Your task to perform on an android device: set default search engine in the chrome app Image 0: 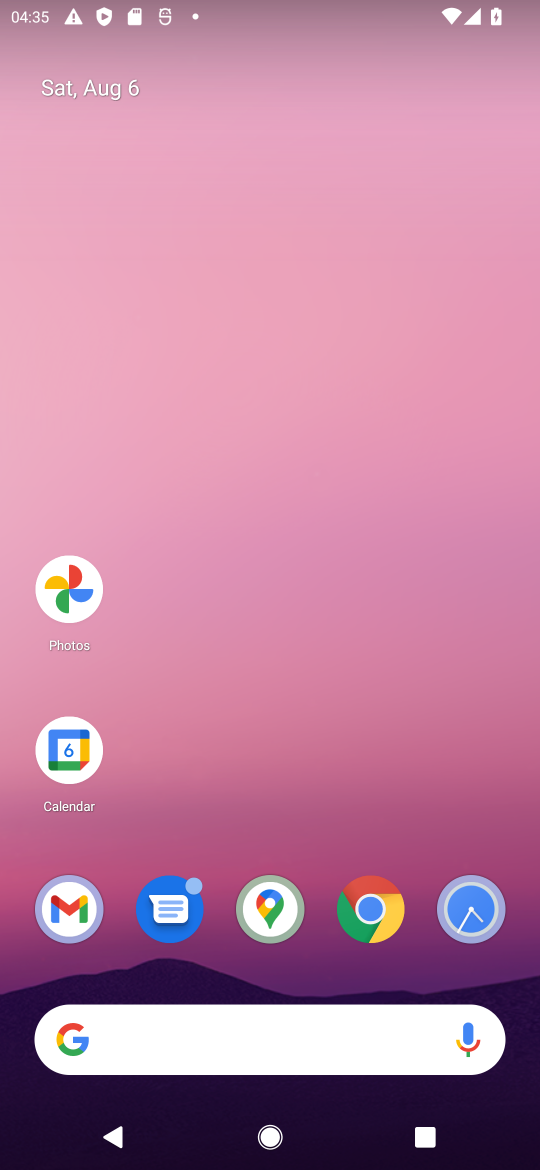
Step 0: click (368, 914)
Your task to perform on an android device: set default search engine in the chrome app Image 1: 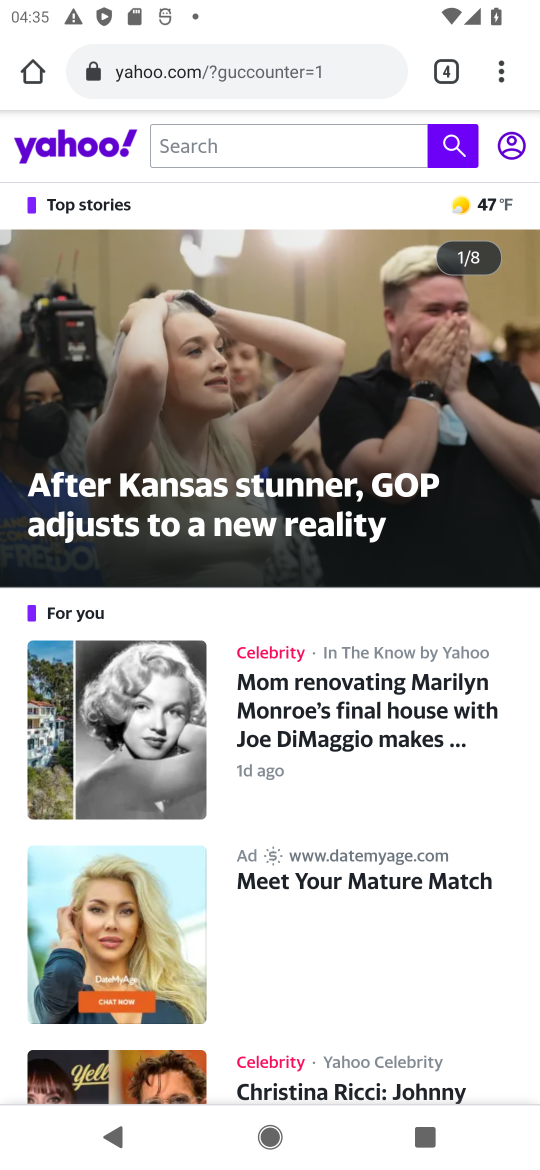
Step 1: click (501, 75)
Your task to perform on an android device: set default search engine in the chrome app Image 2: 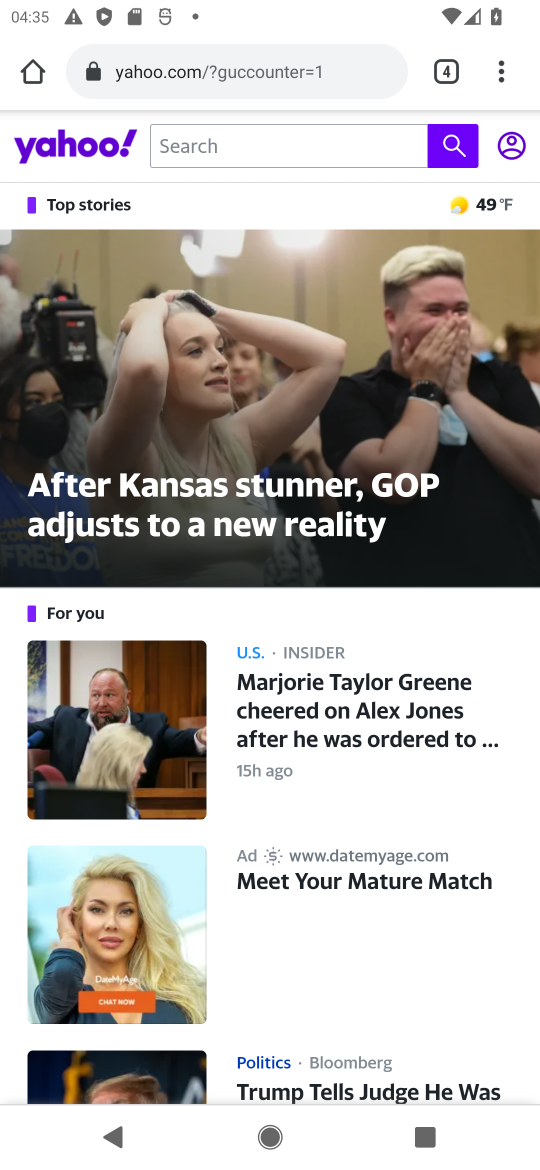
Step 2: click (500, 70)
Your task to perform on an android device: set default search engine in the chrome app Image 3: 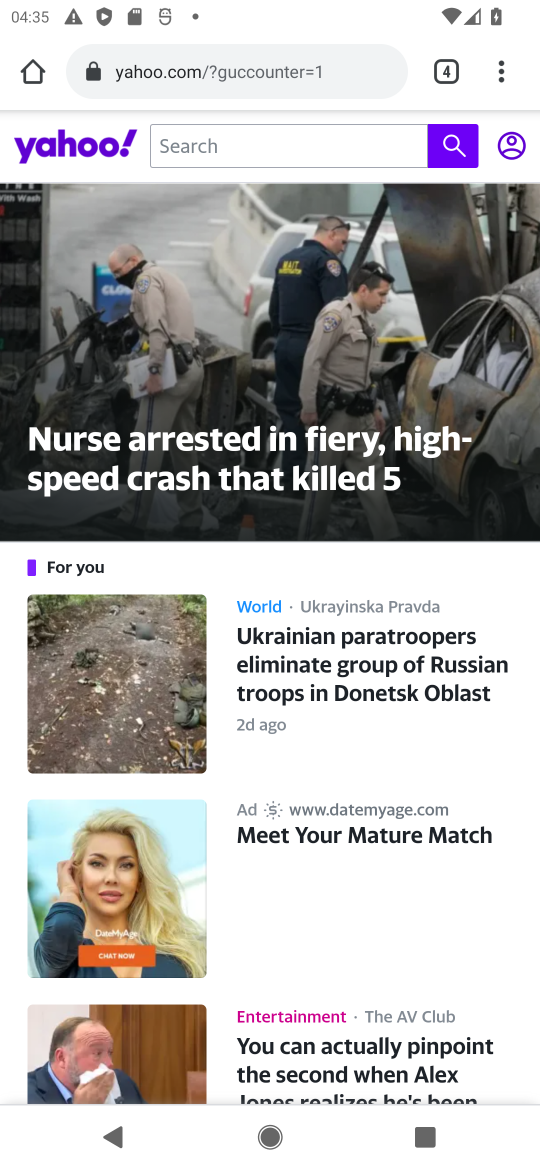
Step 3: click (508, 76)
Your task to perform on an android device: set default search engine in the chrome app Image 4: 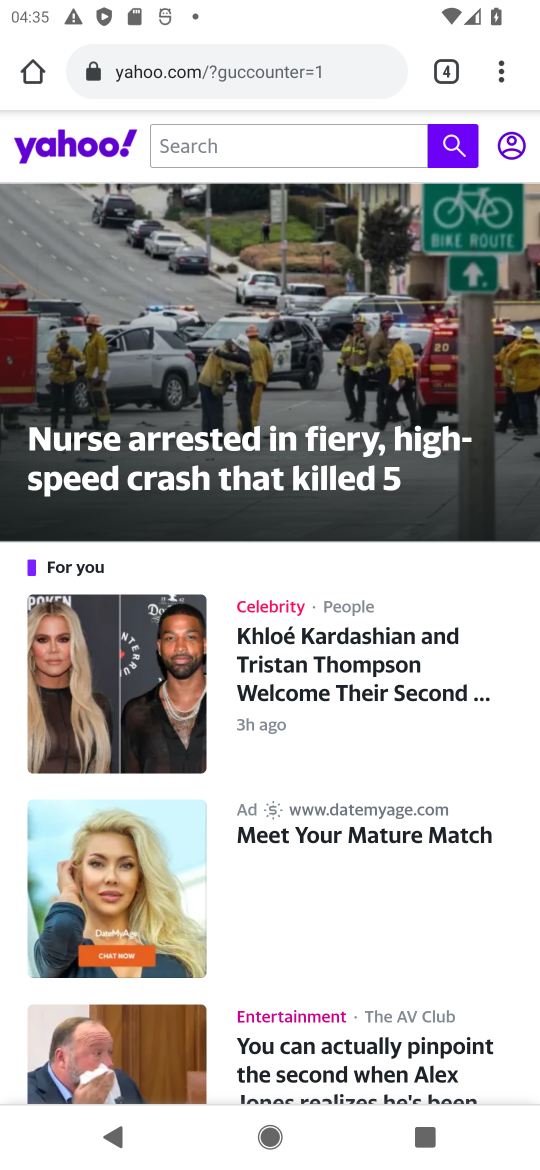
Step 4: click (500, 76)
Your task to perform on an android device: set default search engine in the chrome app Image 5: 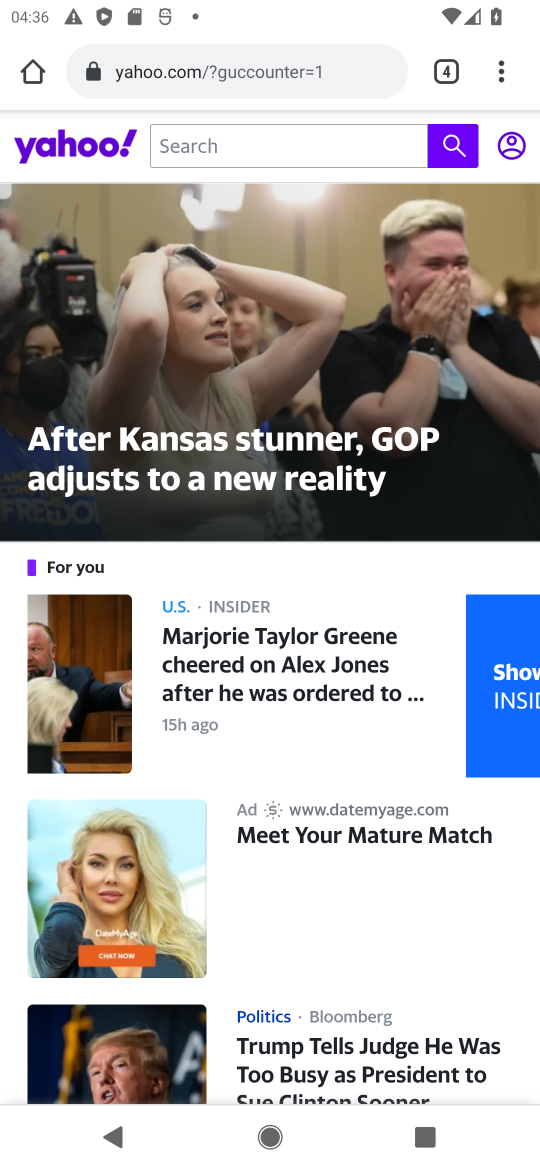
Step 5: click (504, 75)
Your task to perform on an android device: set default search engine in the chrome app Image 6: 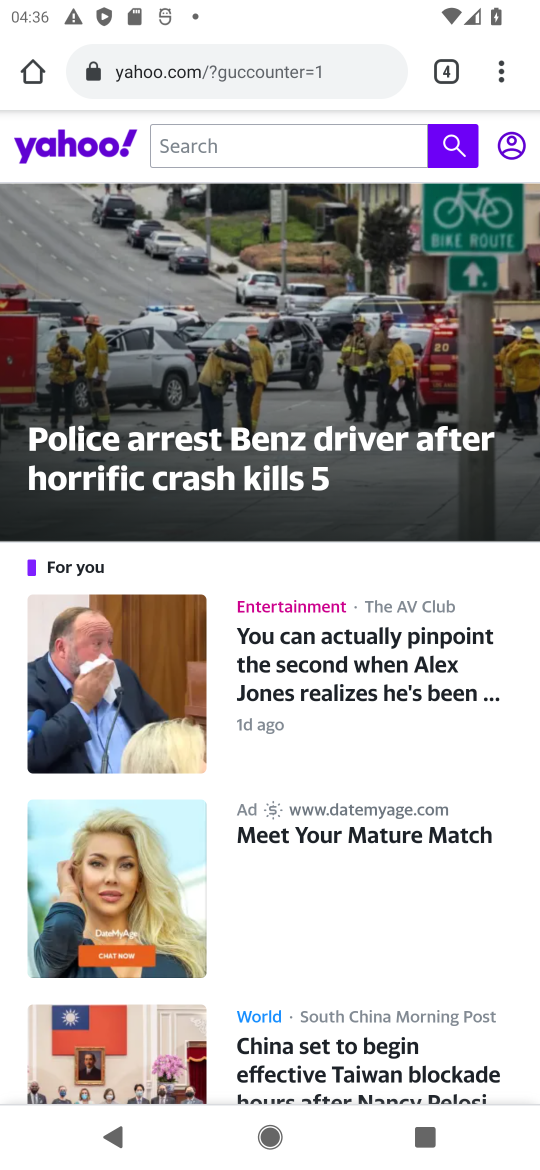
Step 6: click (496, 76)
Your task to perform on an android device: set default search engine in the chrome app Image 7: 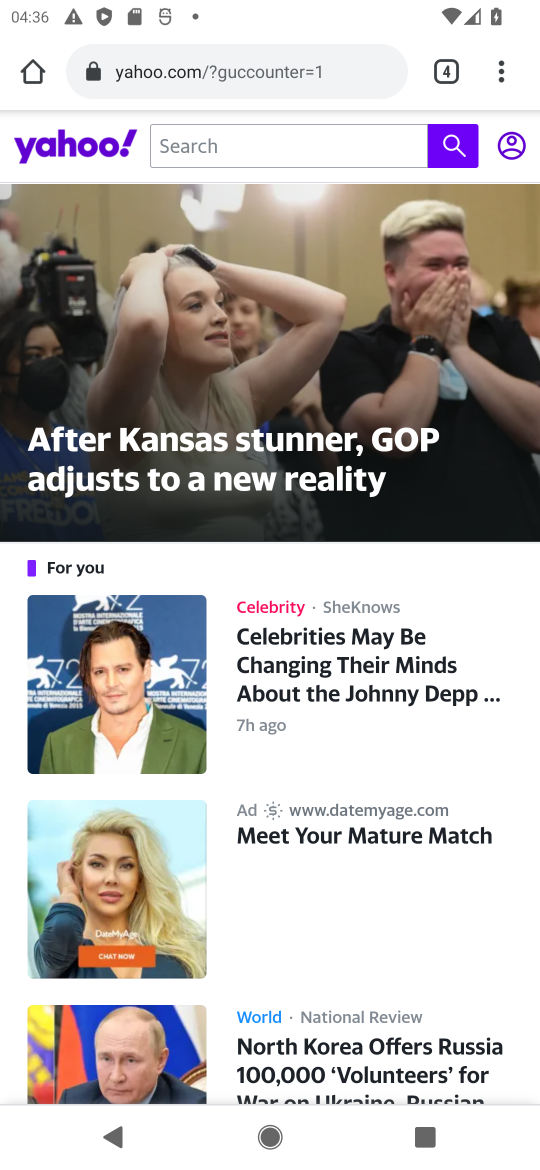
Step 7: click (508, 82)
Your task to perform on an android device: set default search engine in the chrome app Image 8: 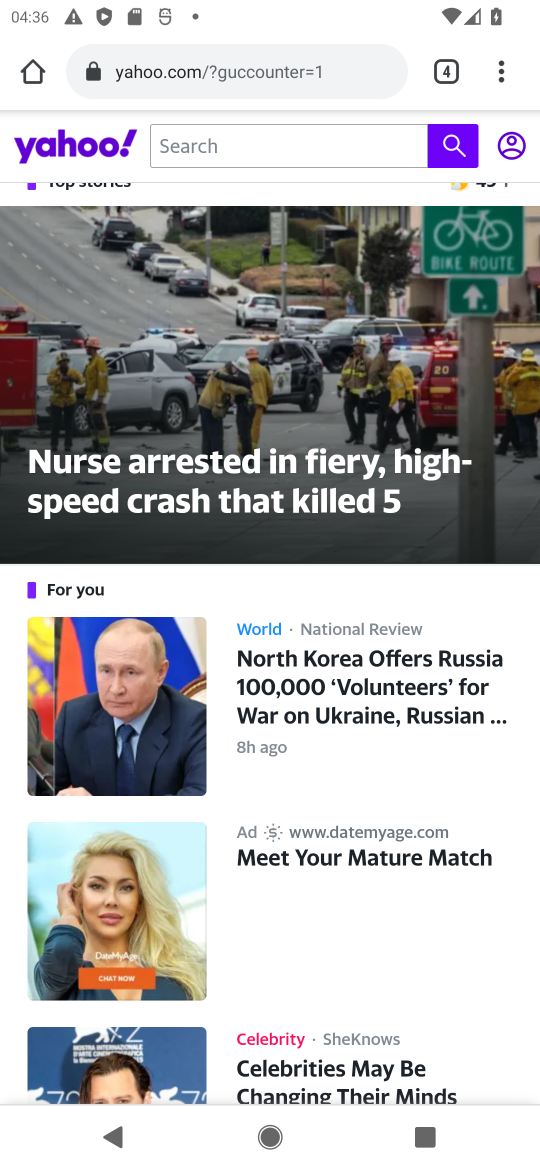
Step 8: click (502, 58)
Your task to perform on an android device: set default search engine in the chrome app Image 9: 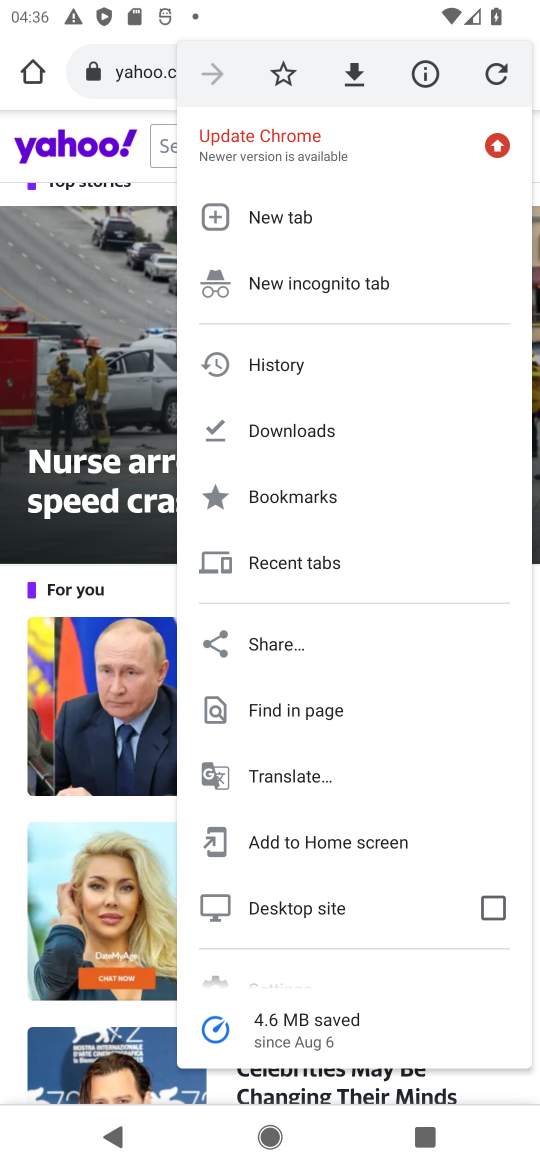
Step 9: drag from (366, 933) to (381, 521)
Your task to perform on an android device: set default search engine in the chrome app Image 10: 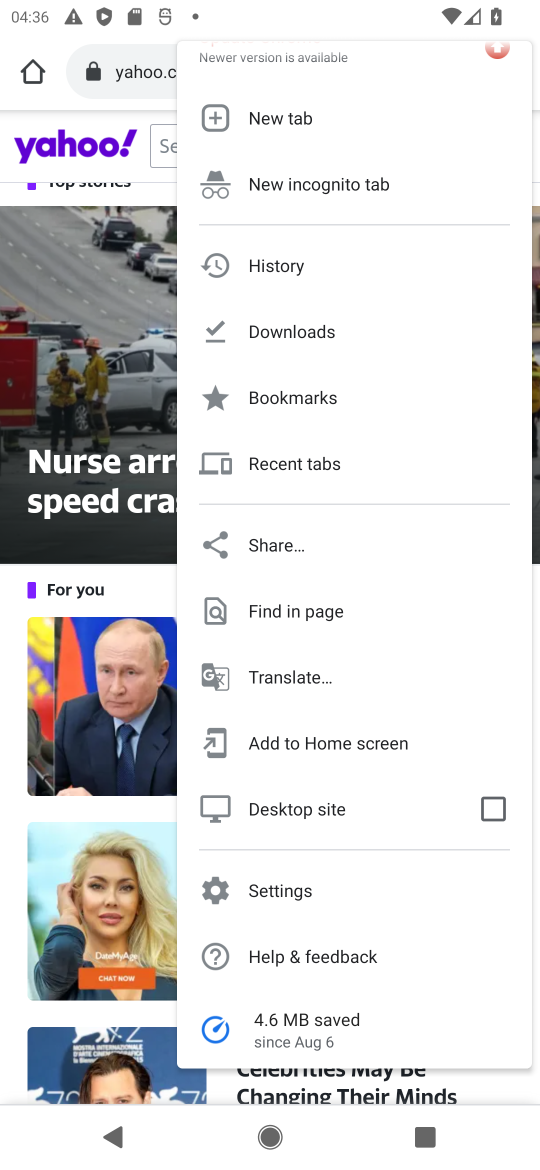
Step 10: click (283, 891)
Your task to perform on an android device: set default search engine in the chrome app Image 11: 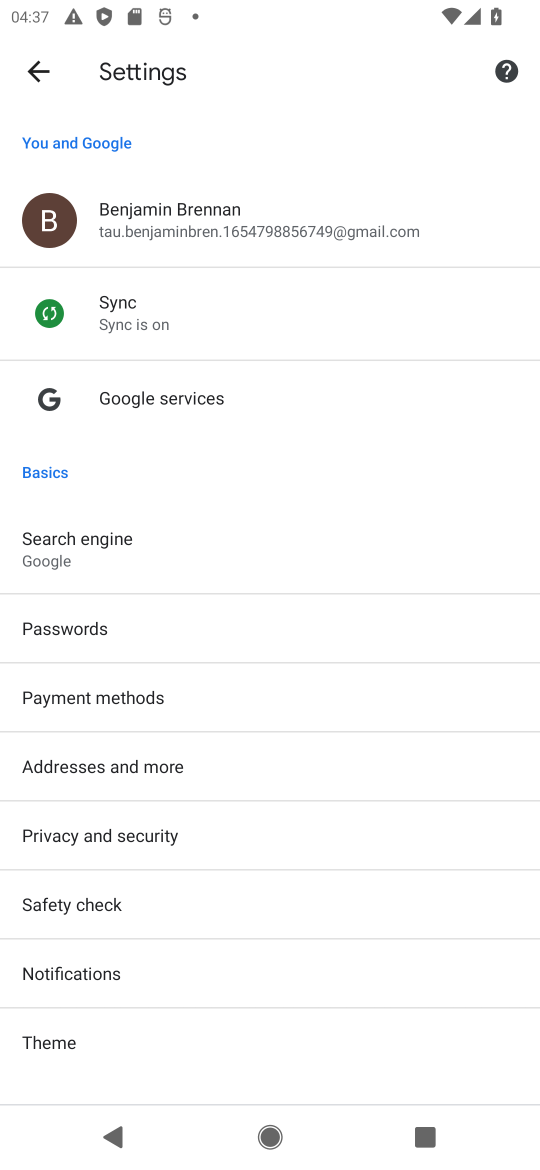
Step 11: click (55, 530)
Your task to perform on an android device: set default search engine in the chrome app Image 12: 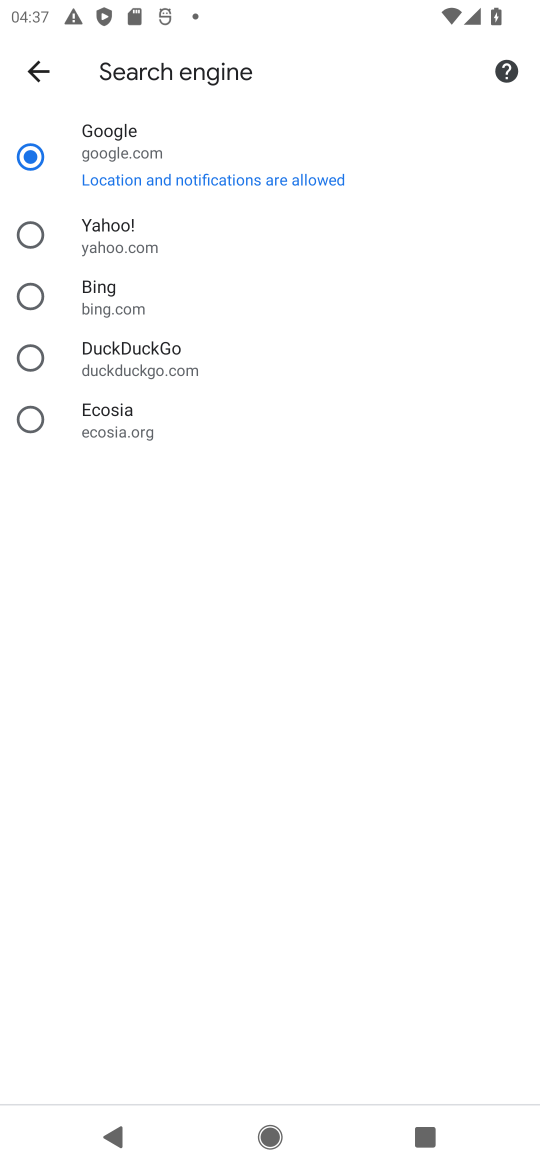
Step 12: task complete